Your task to perform on an android device: turn off notifications in google photos Image 0: 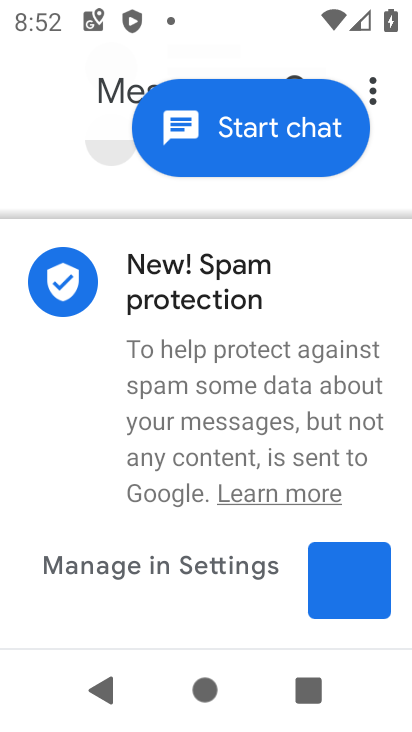
Step 0: press home button
Your task to perform on an android device: turn off notifications in google photos Image 1: 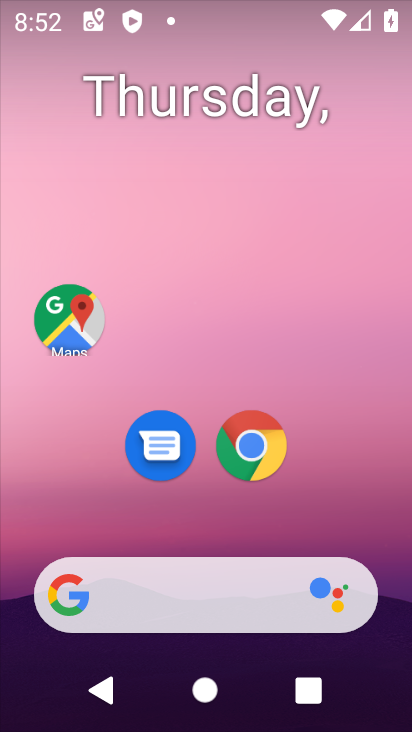
Step 1: drag from (217, 525) to (240, 60)
Your task to perform on an android device: turn off notifications in google photos Image 2: 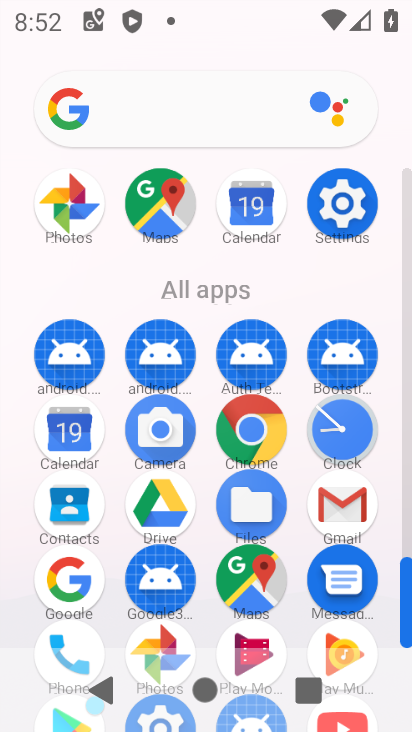
Step 2: drag from (200, 571) to (239, 211)
Your task to perform on an android device: turn off notifications in google photos Image 3: 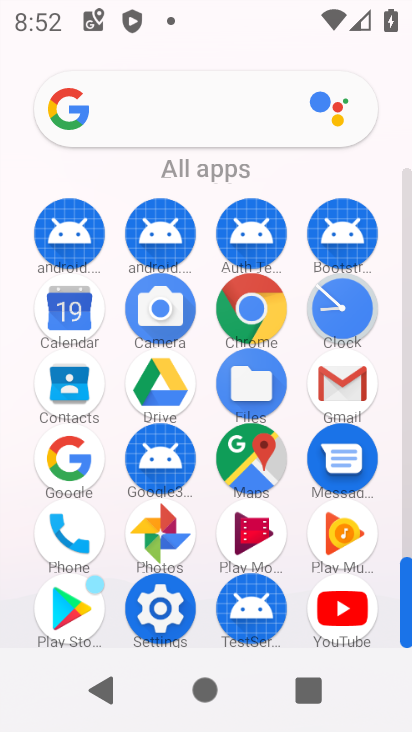
Step 3: click (165, 527)
Your task to perform on an android device: turn off notifications in google photos Image 4: 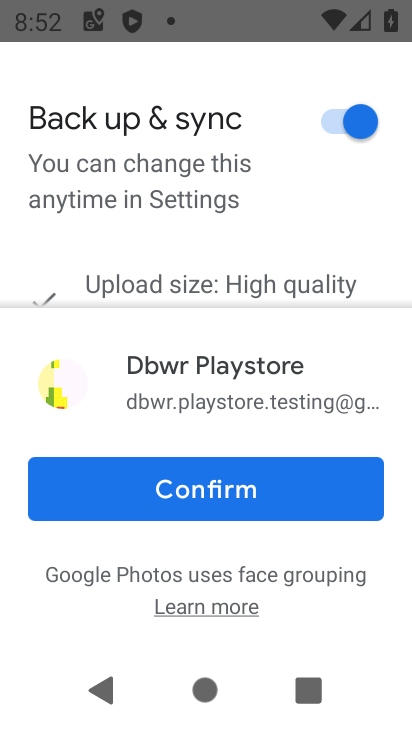
Step 4: click (216, 495)
Your task to perform on an android device: turn off notifications in google photos Image 5: 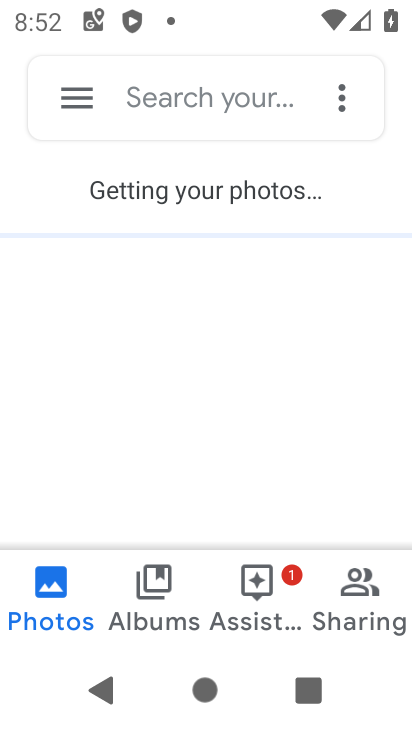
Step 5: click (80, 97)
Your task to perform on an android device: turn off notifications in google photos Image 6: 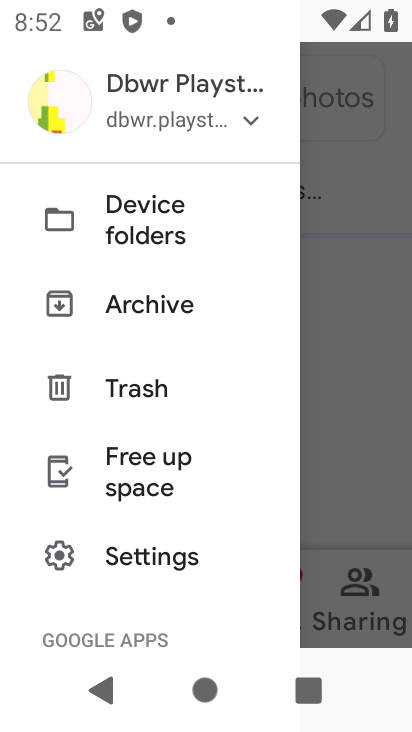
Step 6: click (150, 563)
Your task to perform on an android device: turn off notifications in google photos Image 7: 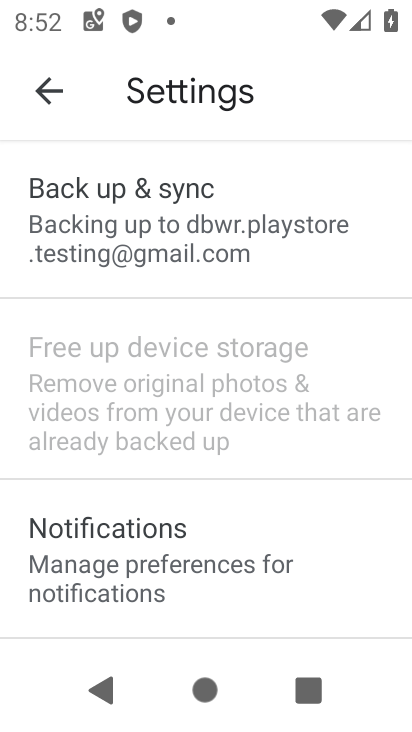
Step 7: click (152, 549)
Your task to perform on an android device: turn off notifications in google photos Image 8: 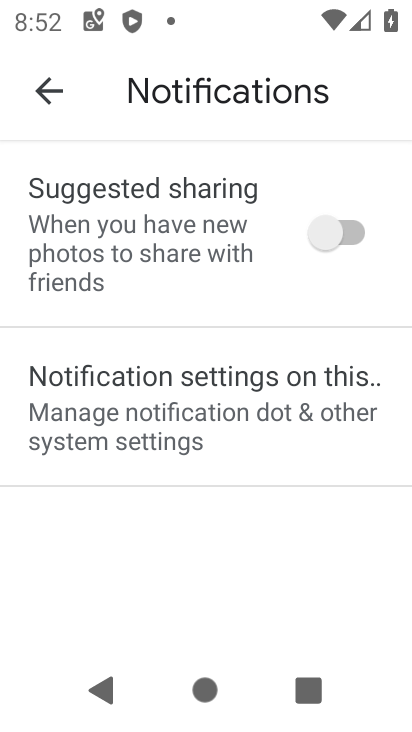
Step 8: click (300, 401)
Your task to perform on an android device: turn off notifications in google photos Image 9: 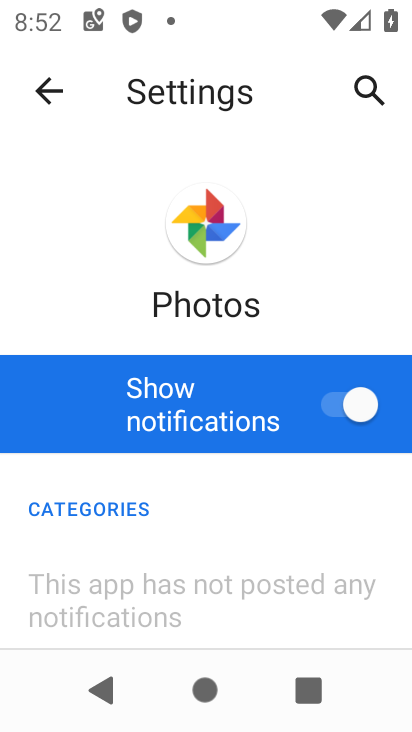
Step 9: click (330, 408)
Your task to perform on an android device: turn off notifications in google photos Image 10: 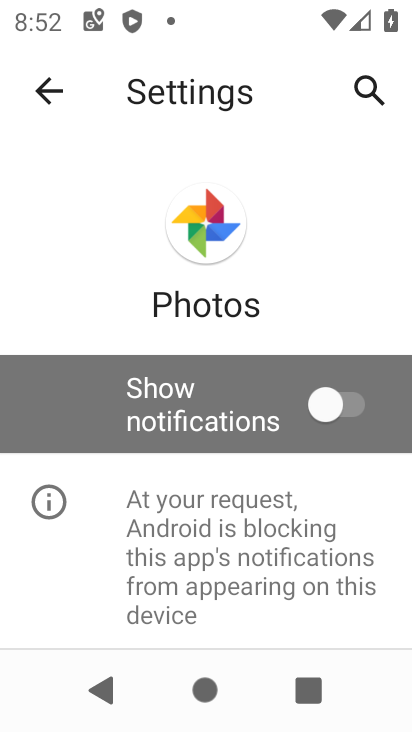
Step 10: task complete